Your task to perform on an android device: turn smart compose on in the gmail app Image 0: 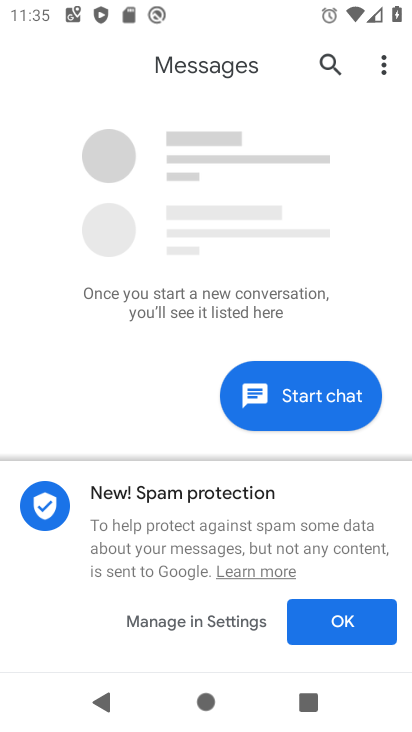
Step 0: press home button
Your task to perform on an android device: turn smart compose on in the gmail app Image 1: 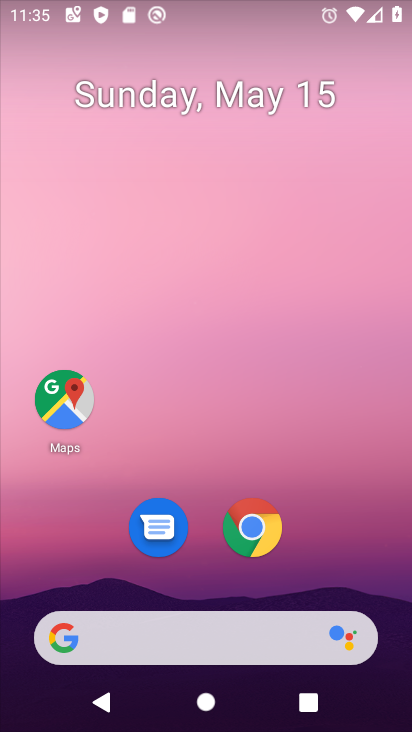
Step 1: drag from (327, 529) to (295, 221)
Your task to perform on an android device: turn smart compose on in the gmail app Image 2: 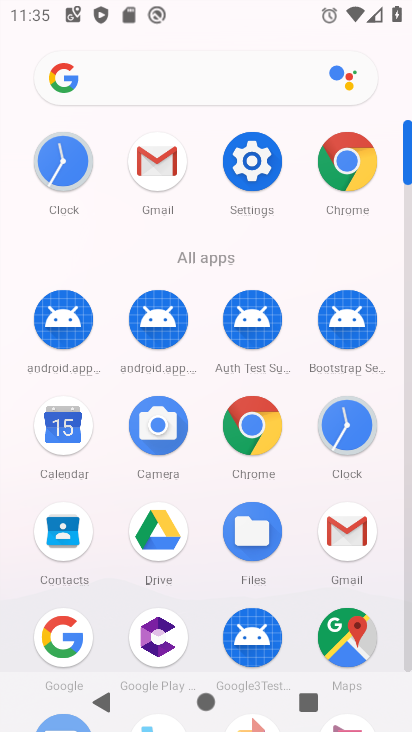
Step 2: click (148, 184)
Your task to perform on an android device: turn smart compose on in the gmail app Image 3: 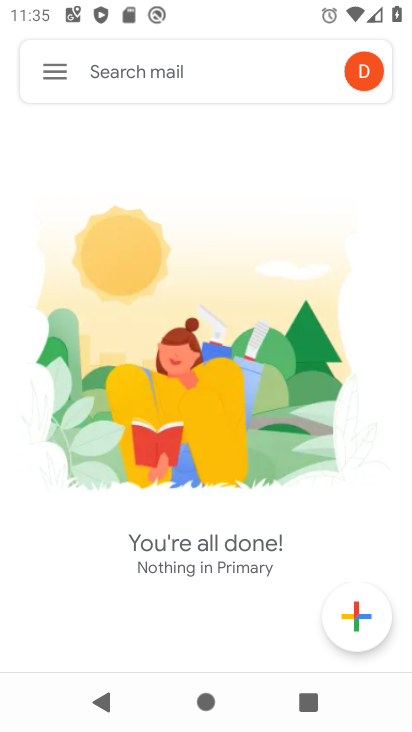
Step 3: click (53, 77)
Your task to perform on an android device: turn smart compose on in the gmail app Image 4: 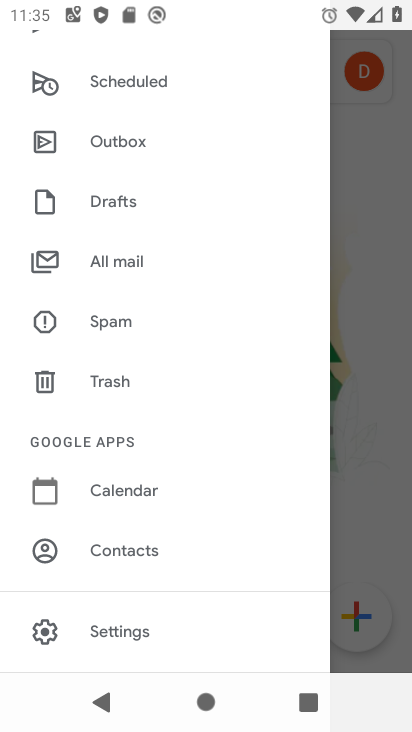
Step 4: click (152, 649)
Your task to perform on an android device: turn smart compose on in the gmail app Image 5: 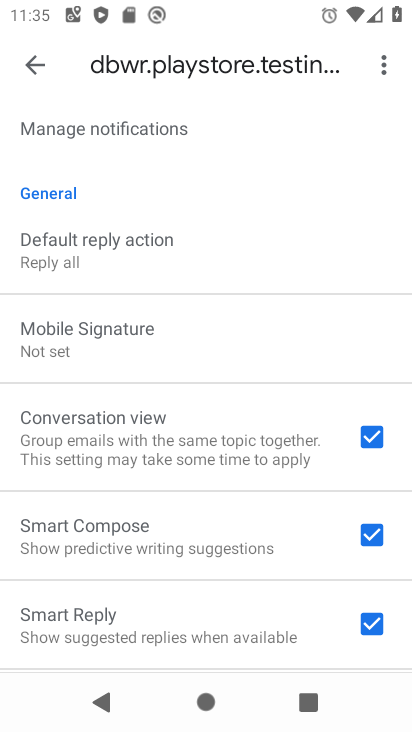
Step 5: task complete